Your task to perform on an android device: Find coffee shops on Maps Image 0: 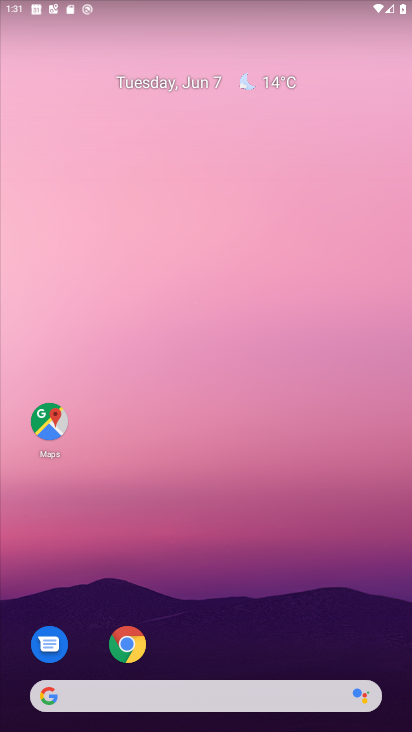
Step 0: click (31, 416)
Your task to perform on an android device: Find coffee shops on Maps Image 1: 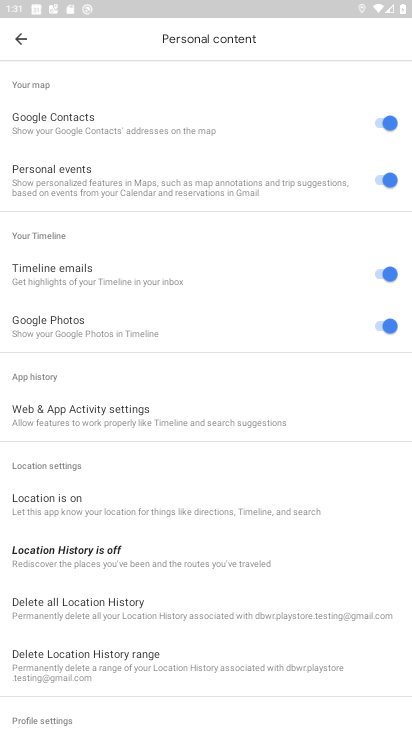
Step 1: click (21, 43)
Your task to perform on an android device: Find coffee shops on Maps Image 2: 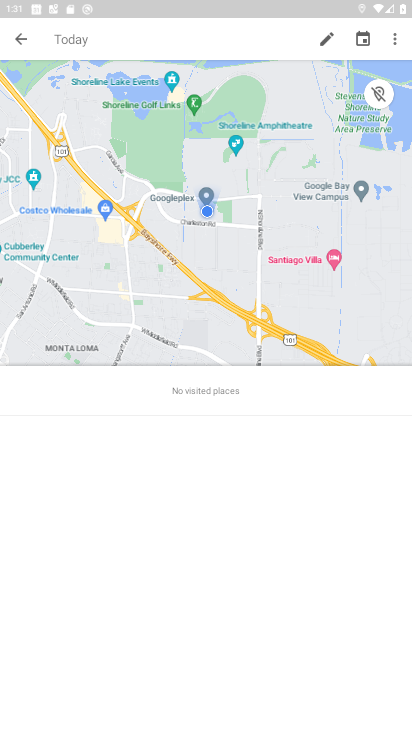
Step 2: click (14, 36)
Your task to perform on an android device: Find coffee shops on Maps Image 3: 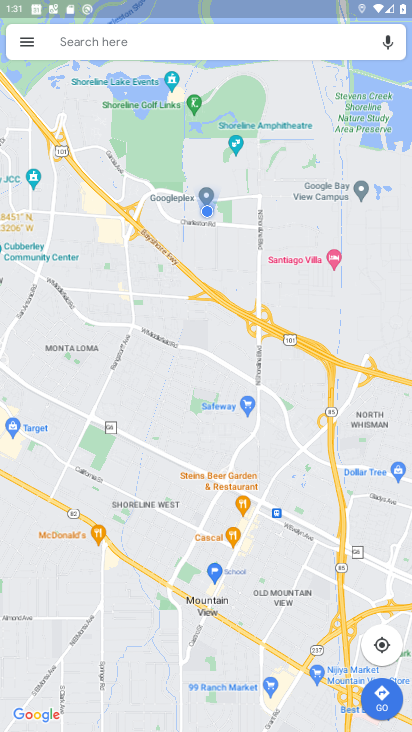
Step 3: click (142, 50)
Your task to perform on an android device: Find coffee shops on Maps Image 4: 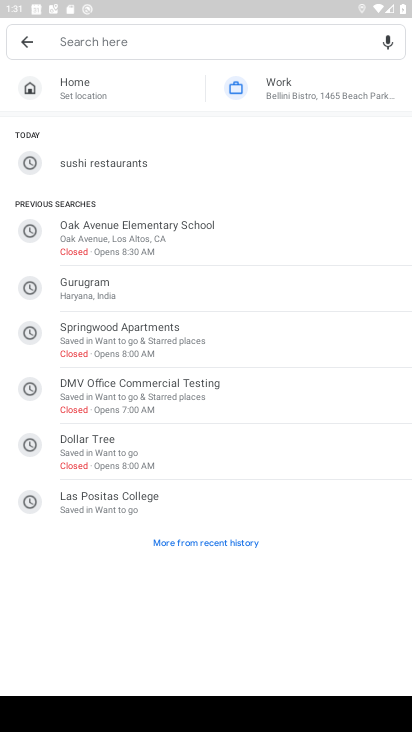
Step 4: type "coffee shops"
Your task to perform on an android device: Find coffee shops on Maps Image 5: 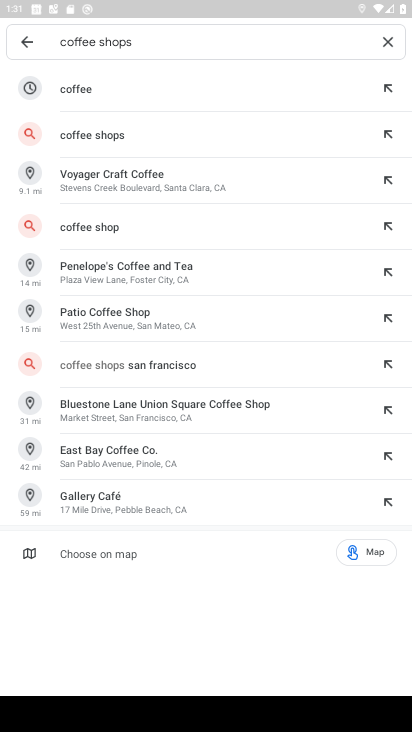
Step 5: click (84, 121)
Your task to perform on an android device: Find coffee shops on Maps Image 6: 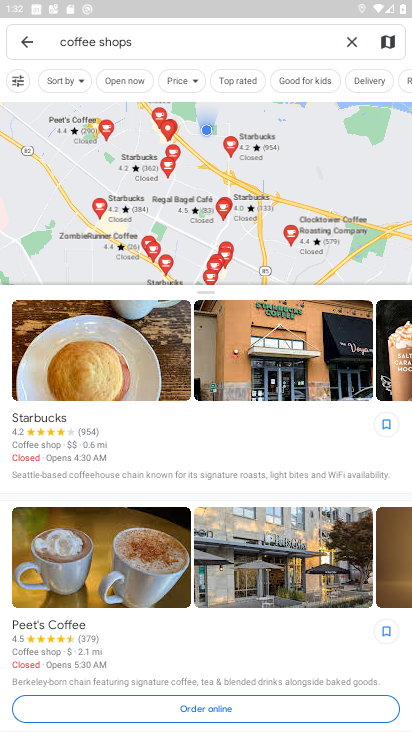
Step 6: task complete